Your task to perform on an android device: Empty the shopping cart on amazon.com. Add usb-a to usb-b to the cart on amazon.com Image 0: 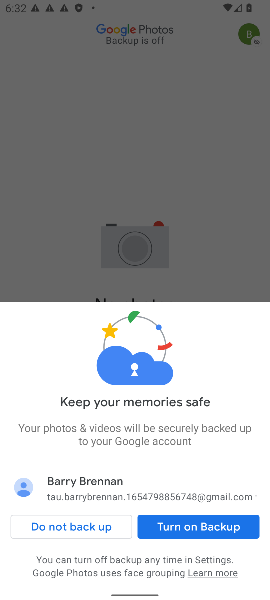
Step 0: press home button
Your task to perform on an android device: Empty the shopping cart on amazon.com. Add usb-a to usb-b to the cart on amazon.com Image 1: 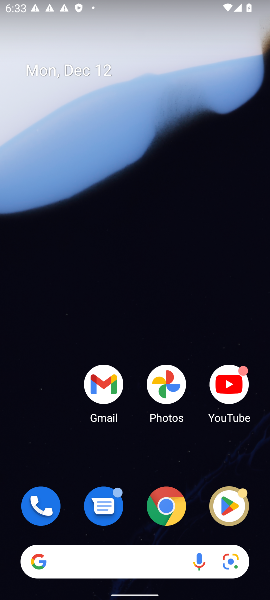
Step 1: click (128, 553)
Your task to perform on an android device: Empty the shopping cart on amazon.com. Add usb-a to usb-b to the cart on amazon.com Image 2: 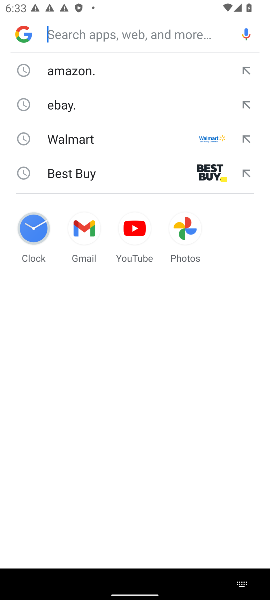
Step 2: click (71, 74)
Your task to perform on an android device: Empty the shopping cart on amazon.com. Add usb-a to usb-b to the cart on amazon.com Image 3: 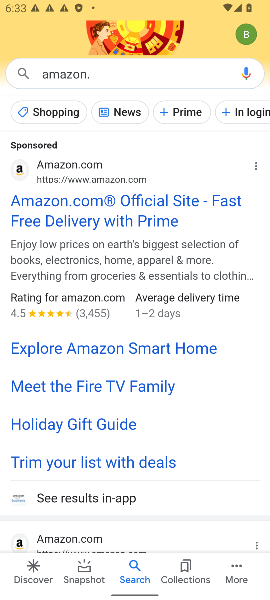
Step 3: click (35, 205)
Your task to perform on an android device: Empty the shopping cart on amazon.com. Add usb-a to usb-b to the cart on amazon.com Image 4: 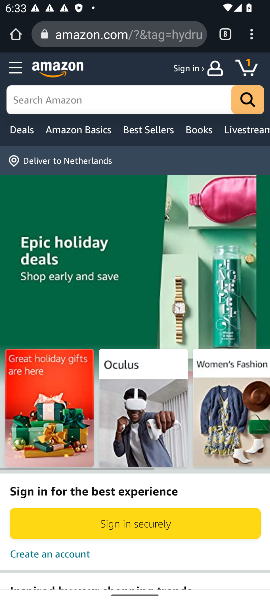
Step 4: click (97, 111)
Your task to perform on an android device: Empty the shopping cart on amazon.com. Add usb-a to usb-b to the cart on amazon.com Image 5: 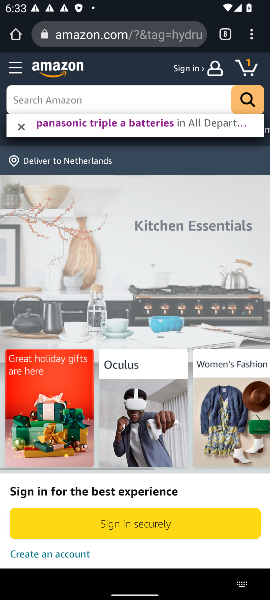
Step 5: type "usb-a to usb-b"
Your task to perform on an android device: Empty the shopping cart on amazon.com. Add usb-a to usb-b to the cart on amazon.com Image 6: 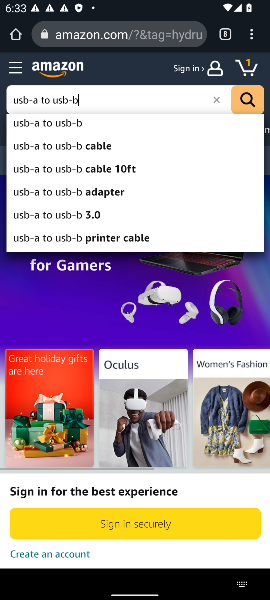
Step 6: click (250, 109)
Your task to perform on an android device: Empty the shopping cart on amazon.com. Add usb-a to usb-b to the cart on amazon.com Image 7: 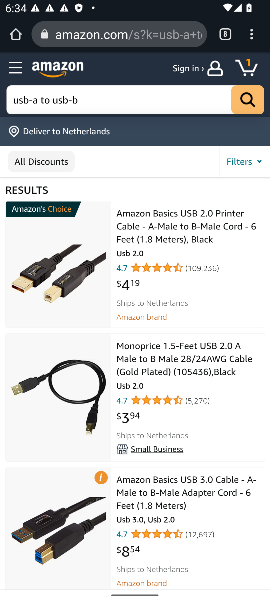
Step 7: click (131, 235)
Your task to perform on an android device: Empty the shopping cart on amazon.com. Add usb-a to usb-b to the cart on amazon.com Image 8: 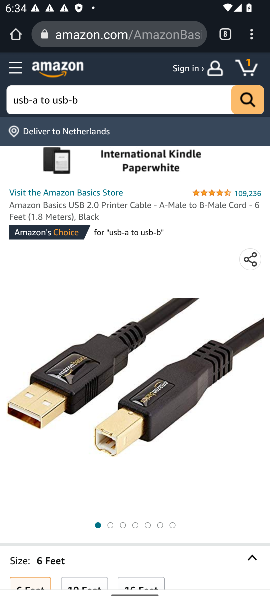
Step 8: drag from (127, 387) to (145, 173)
Your task to perform on an android device: Empty the shopping cart on amazon.com. Add usb-a to usb-b to the cart on amazon.com Image 9: 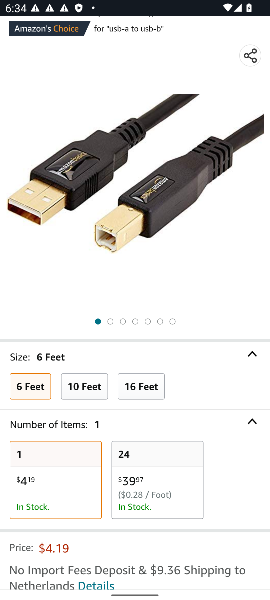
Step 9: drag from (131, 524) to (159, 121)
Your task to perform on an android device: Empty the shopping cart on amazon.com. Add usb-a to usb-b to the cart on amazon.com Image 10: 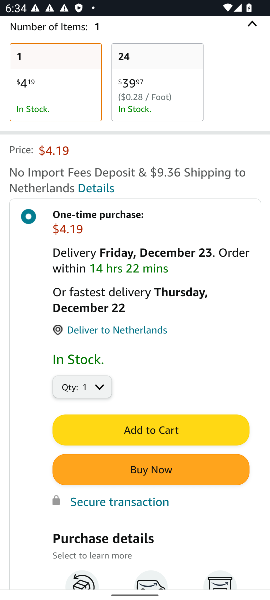
Step 10: click (205, 433)
Your task to perform on an android device: Empty the shopping cart on amazon.com. Add usb-a to usb-b to the cart on amazon.com Image 11: 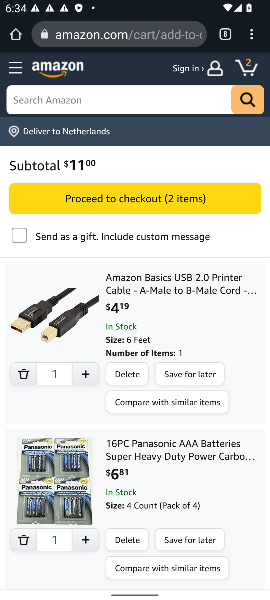
Step 11: task complete